Your task to perform on an android device: Go to settings Image 0: 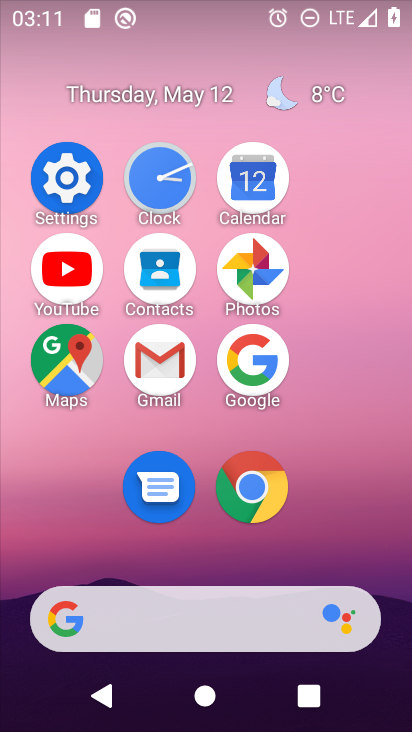
Step 0: click (51, 181)
Your task to perform on an android device: Go to settings Image 1: 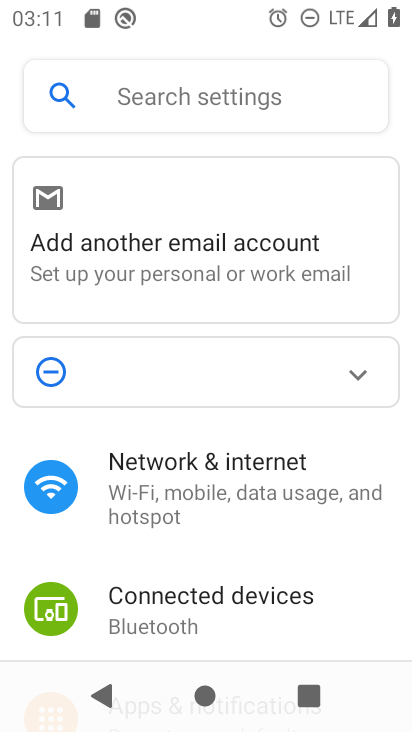
Step 1: task complete